Your task to perform on an android device: Go to Google Image 0: 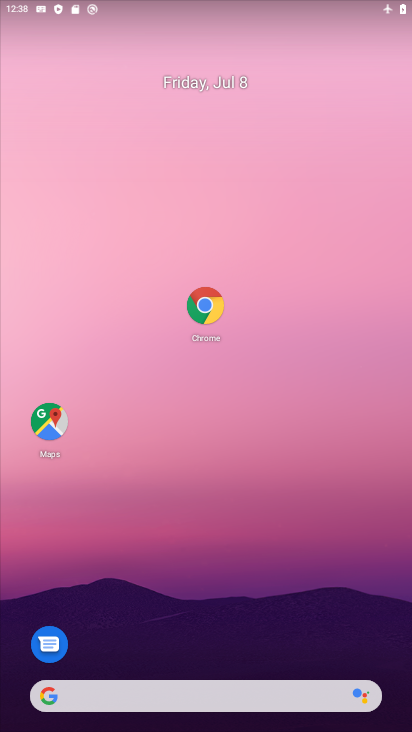
Step 0: drag from (170, 675) to (178, 359)
Your task to perform on an android device: Go to Google Image 1: 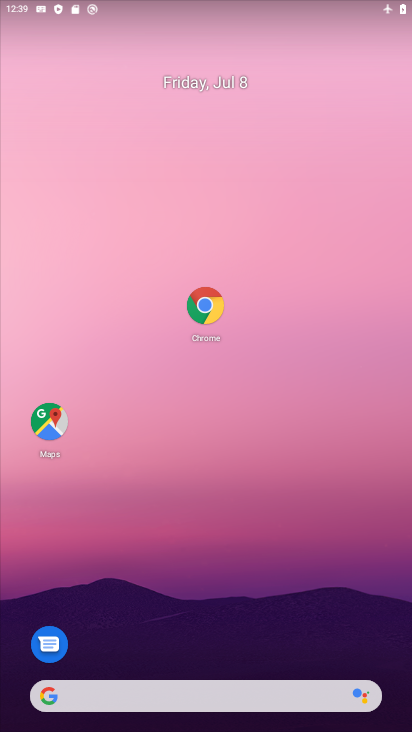
Step 1: drag from (219, 683) to (211, 342)
Your task to perform on an android device: Go to Google Image 2: 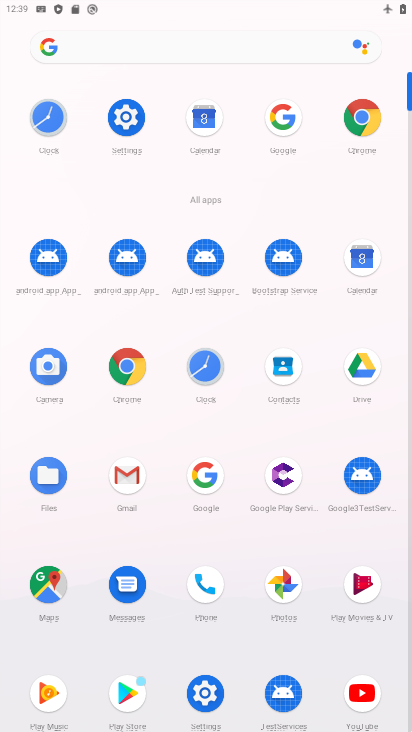
Step 2: click (205, 465)
Your task to perform on an android device: Go to Google Image 3: 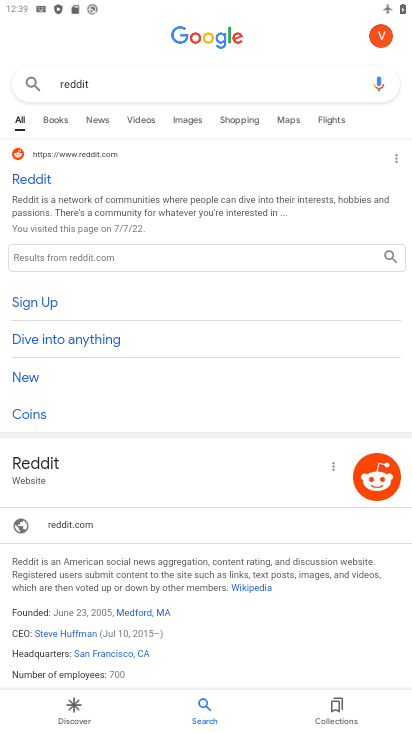
Step 3: task complete